Your task to perform on an android device: change text size in settings app Image 0: 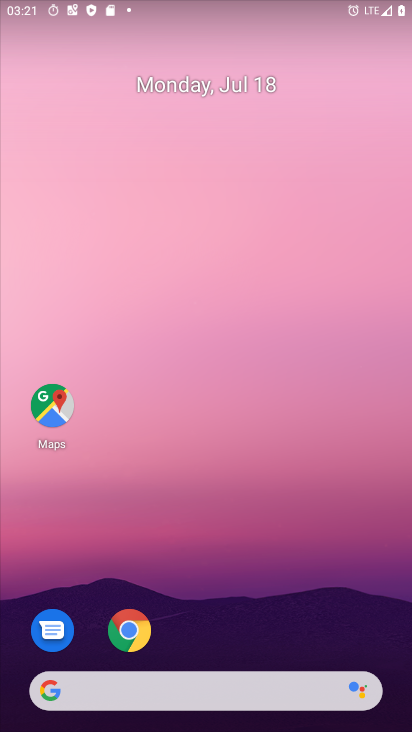
Step 0: drag from (212, 422) to (203, 291)
Your task to perform on an android device: change text size in settings app Image 1: 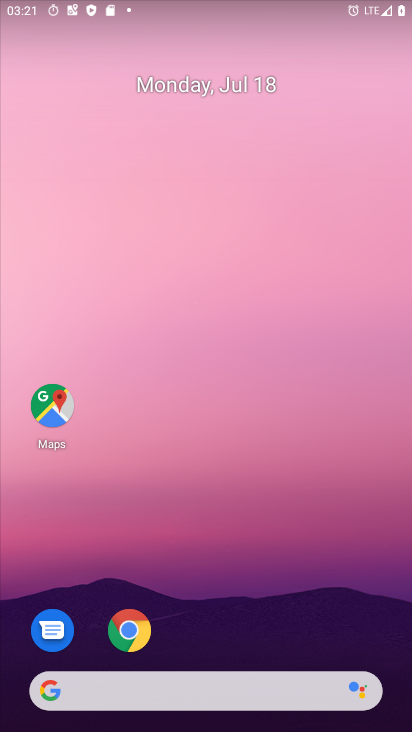
Step 1: drag from (215, 613) to (223, 144)
Your task to perform on an android device: change text size in settings app Image 2: 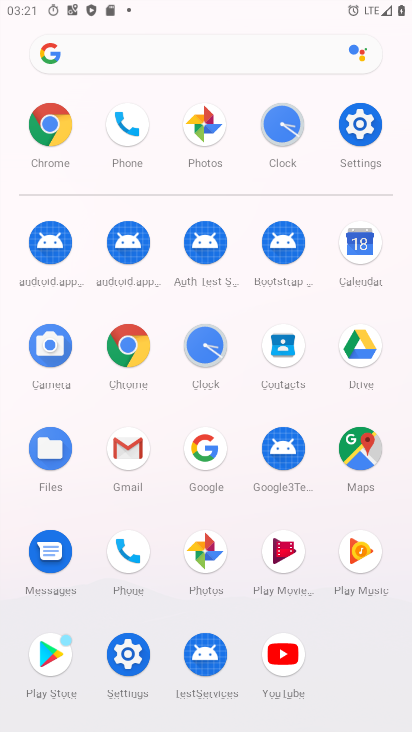
Step 2: drag from (250, 655) to (253, 219)
Your task to perform on an android device: change text size in settings app Image 3: 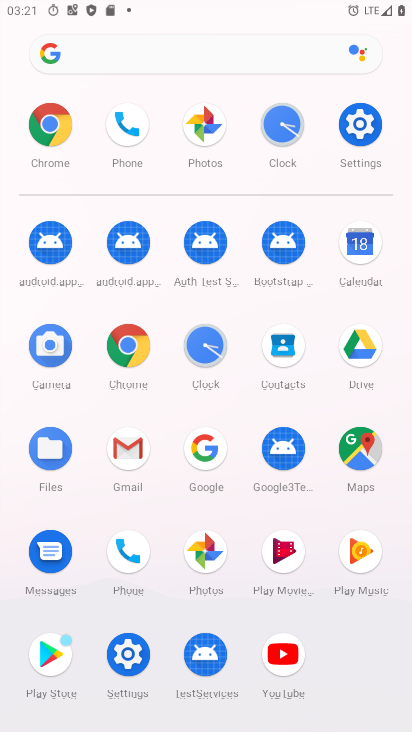
Step 3: click (366, 116)
Your task to perform on an android device: change text size in settings app Image 4: 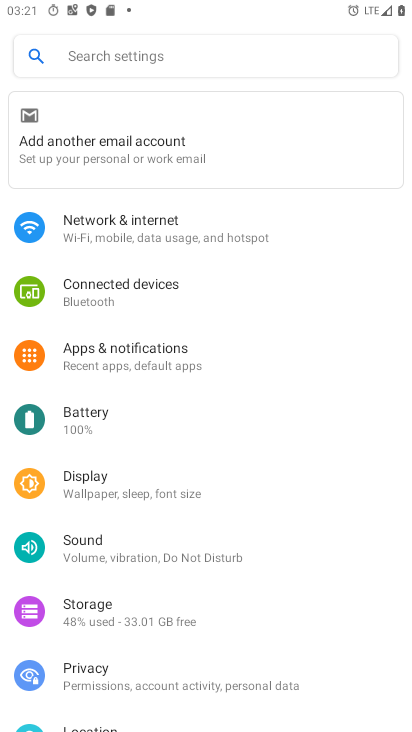
Step 4: click (358, 125)
Your task to perform on an android device: change text size in settings app Image 5: 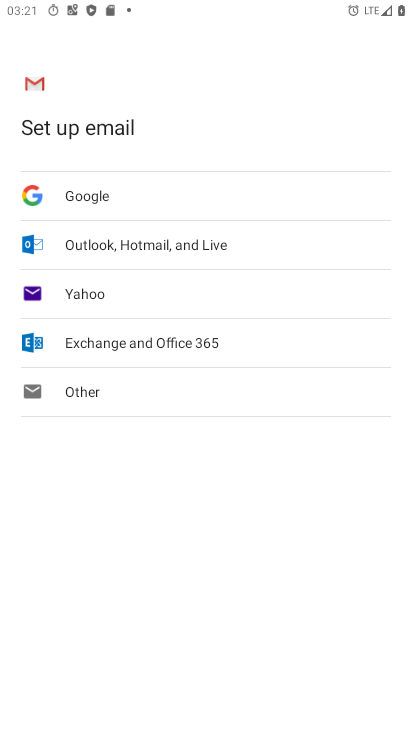
Step 5: press home button
Your task to perform on an android device: change text size in settings app Image 6: 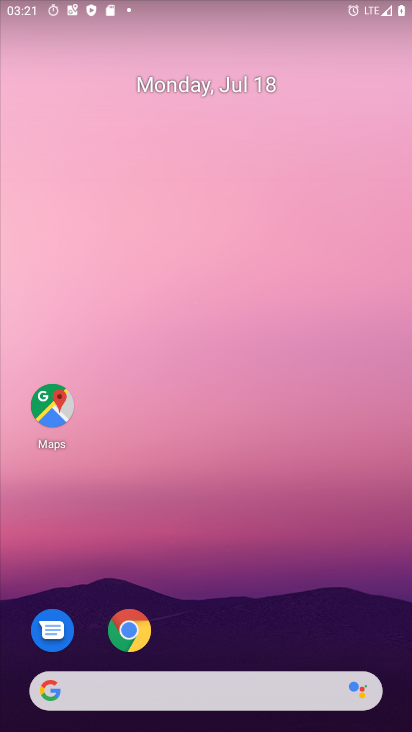
Step 6: drag from (218, 651) to (210, 63)
Your task to perform on an android device: change text size in settings app Image 7: 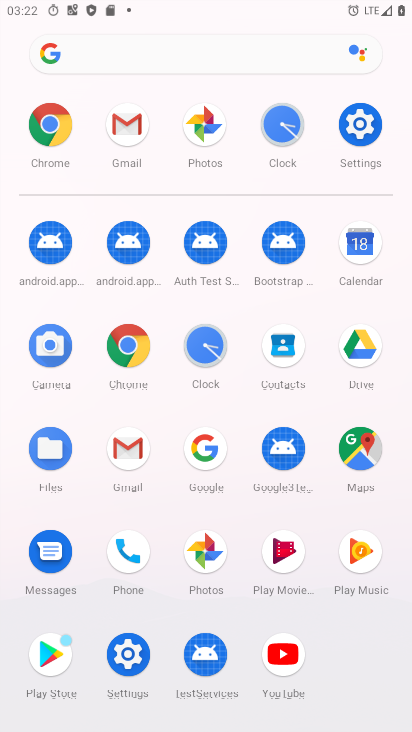
Step 7: click (374, 138)
Your task to perform on an android device: change text size in settings app Image 8: 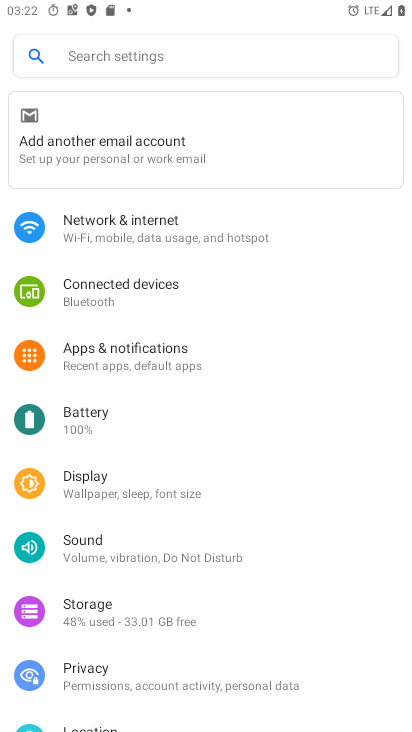
Step 8: drag from (163, 608) to (204, 294)
Your task to perform on an android device: change text size in settings app Image 9: 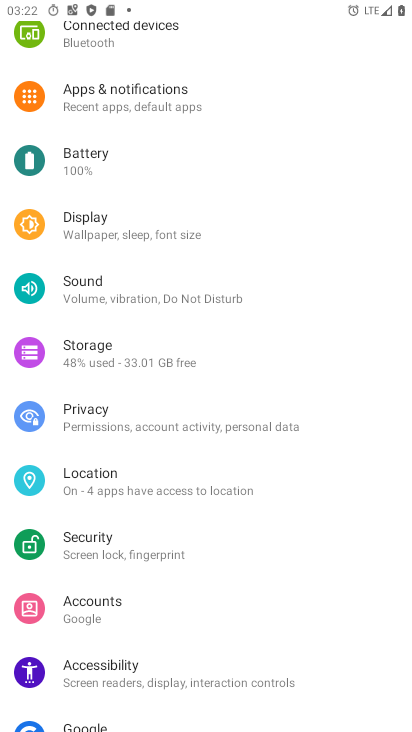
Step 9: click (165, 254)
Your task to perform on an android device: change text size in settings app Image 10: 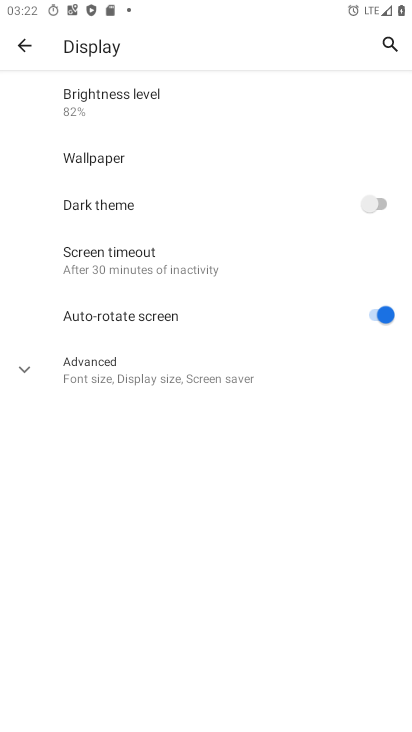
Step 10: click (144, 376)
Your task to perform on an android device: change text size in settings app Image 11: 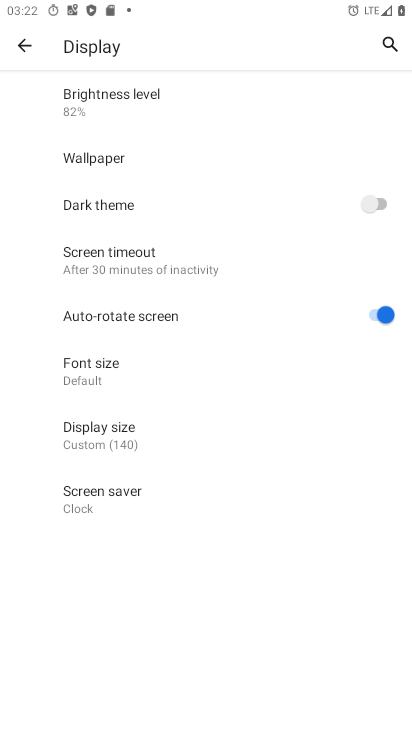
Step 11: click (144, 376)
Your task to perform on an android device: change text size in settings app Image 12: 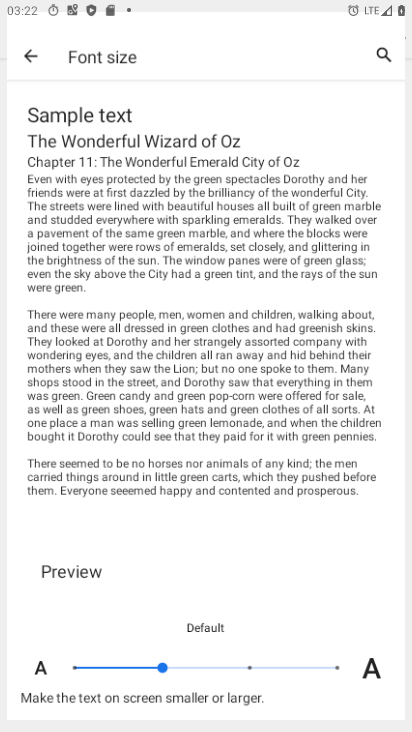
Step 12: click (181, 384)
Your task to perform on an android device: change text size in settings app Image 13: 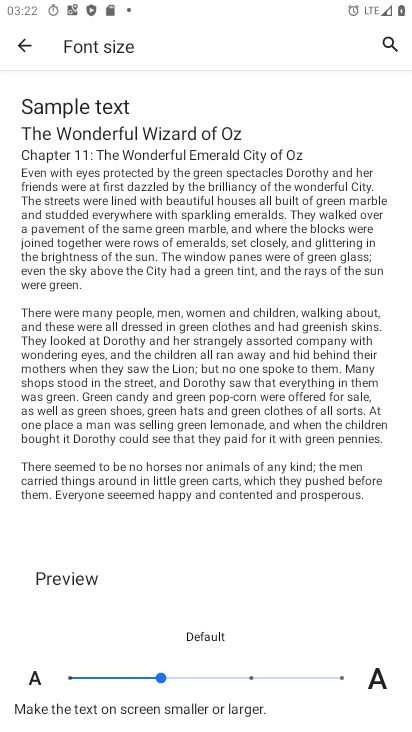
Step 13: click (78, 665)
Your task to perform on an android device: change text size in settings app Image 14: 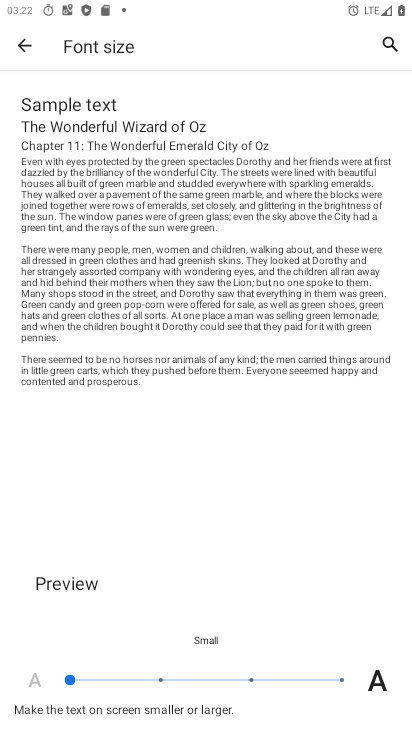
Step 14: task complete